Your task to perform on an android device: toggle pop-ups in chrome Image 0: 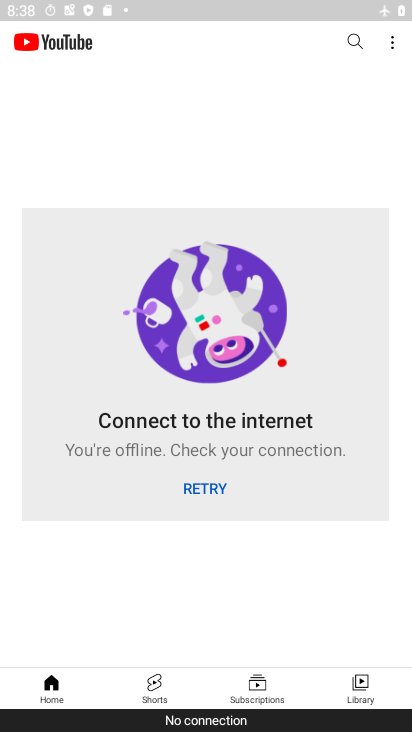
Step 0: press home button
Your task to perform on an android device: toggle pop-ups in chrome Image 1: 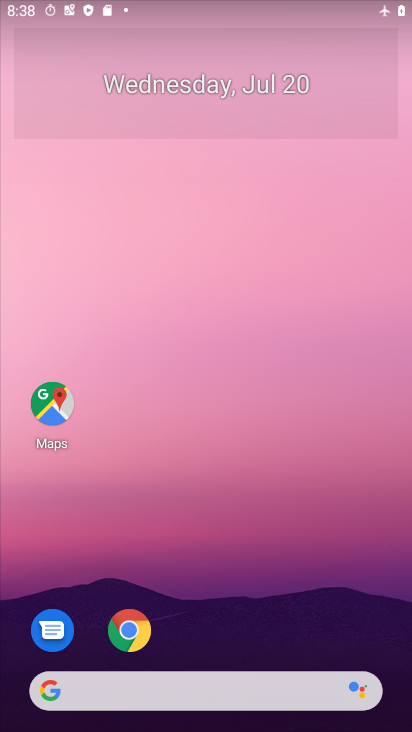
Step 1: drag from (249, 665) to (329, 175)
Your task to perform on an android device: toggle pop-ups in chrome Image 2: 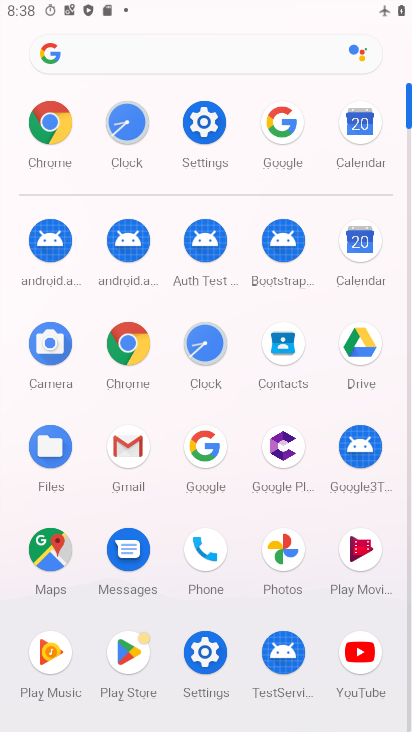
Step 2: click (147, 364)
Your task to perform on an android device: toggle pop-ups in chrome Image 3: 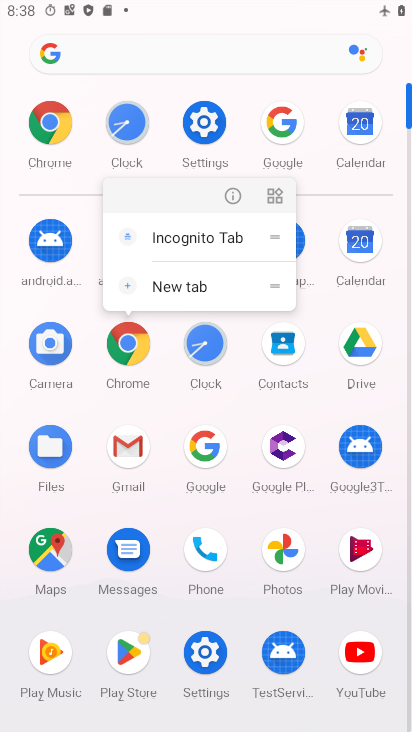
Step 3: click (145, 365)
Your task to perform on an android device: toggle pop-ups in chrome Image 4: 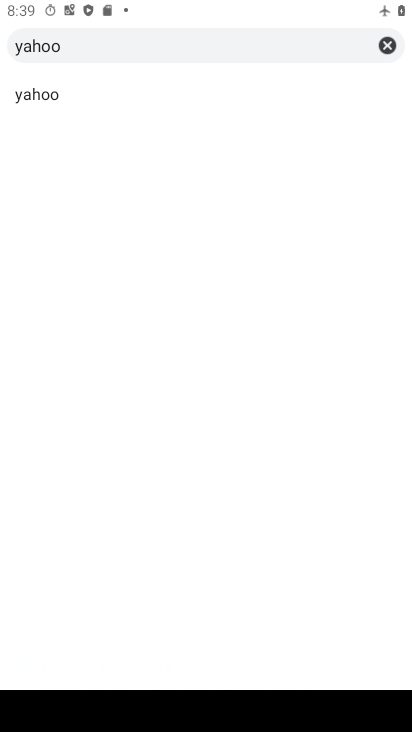
Step 4: press home button
Your task to perform on an android device: toggle pop-ups in chrome Image 5: 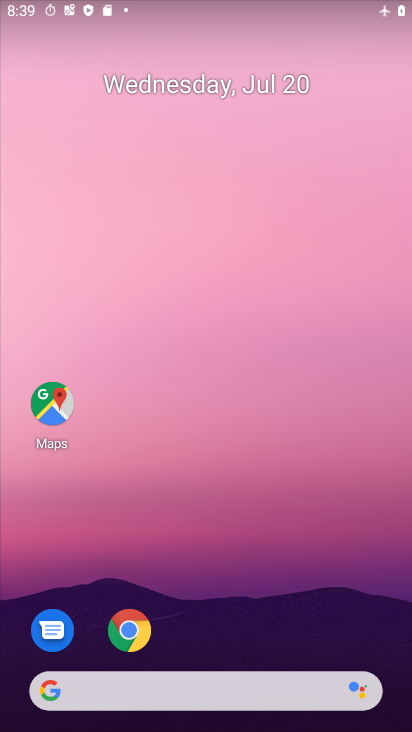
Step 5: click (136, 636)
Your task to perform on an android device: toggle pop-ups in chrome Image 6: 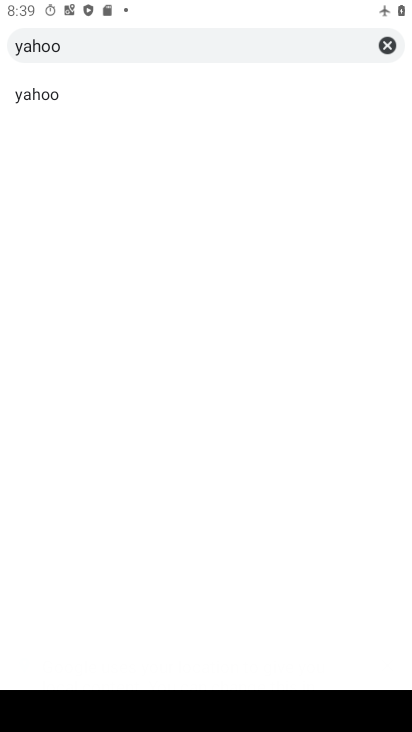
Step 6: click (390, 47)
Your task to perform on an android device: toggle pop-ups in chrome Image 7: 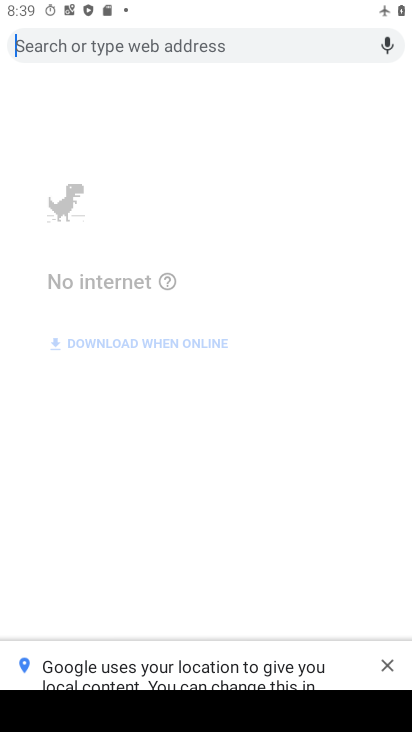
Step 7: press back button
Your task to perform on an android device: toggle pop-ups in chrome Image 8: 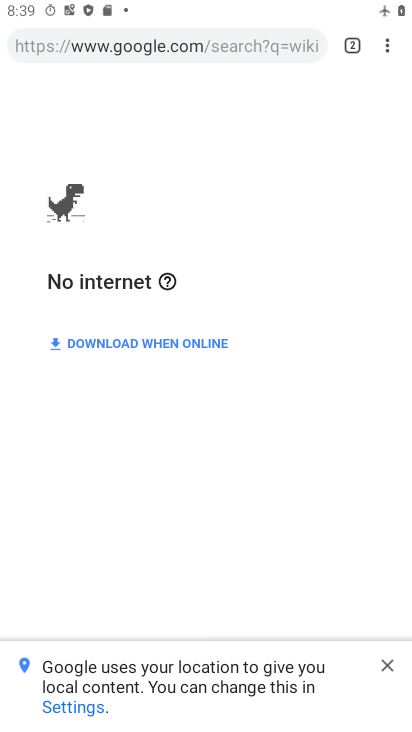
Step 8: click (389, 50)
Your task to perform on an android device: toggle pop-ups in chrome Image 9: 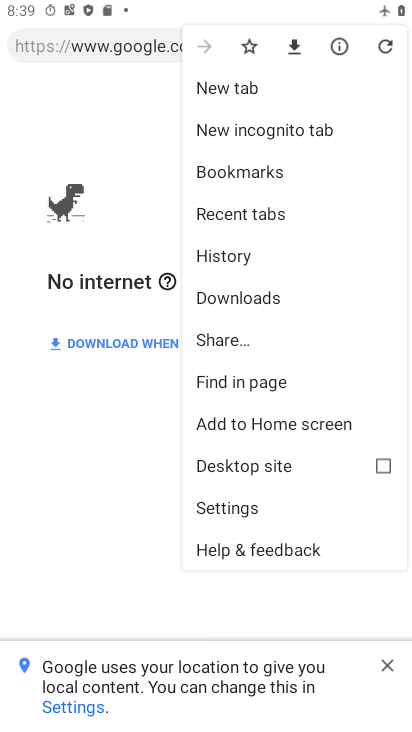
Step 9: click (240, 507)
Your task to perform on an android device: toggle pop-ups in chrome Image 10: 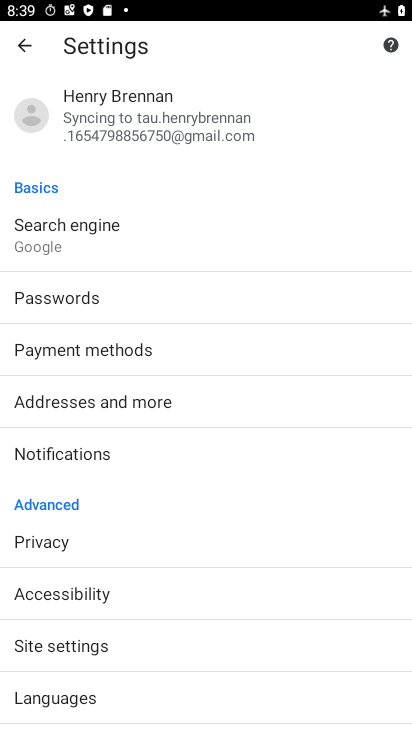
Step 10: click (126, 654)
Your task to perform on an android device: toggle pop-ups in chrome Image 11: 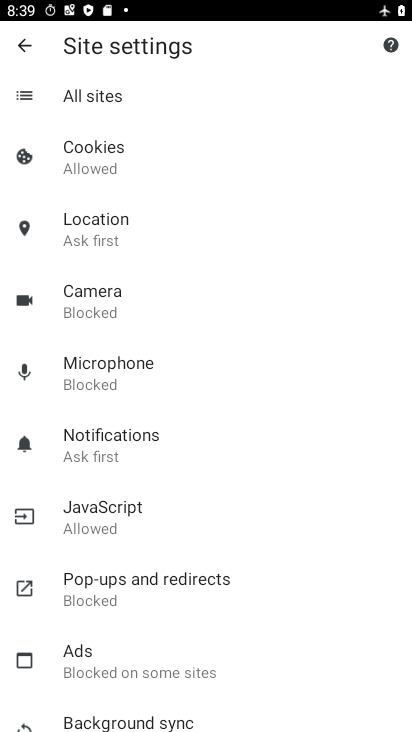
Step 11: click (149, 596)
Your task to perform on an android device: toggle pop-ups in chrome Image 12: 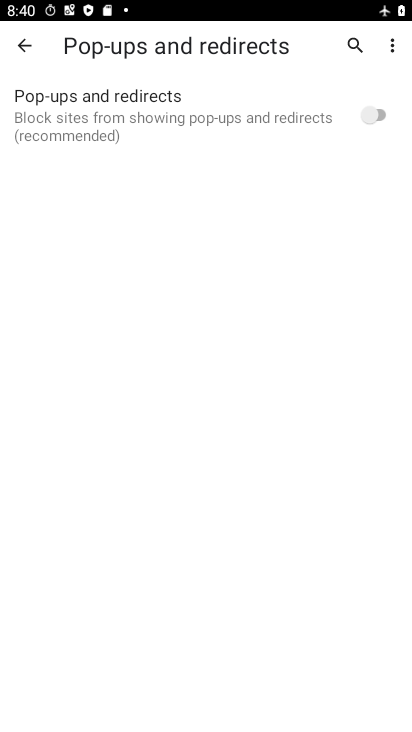
Step 12: click (380, 113)
Your task to perform on an android device: toggle pop-ups in chrome Image 13: 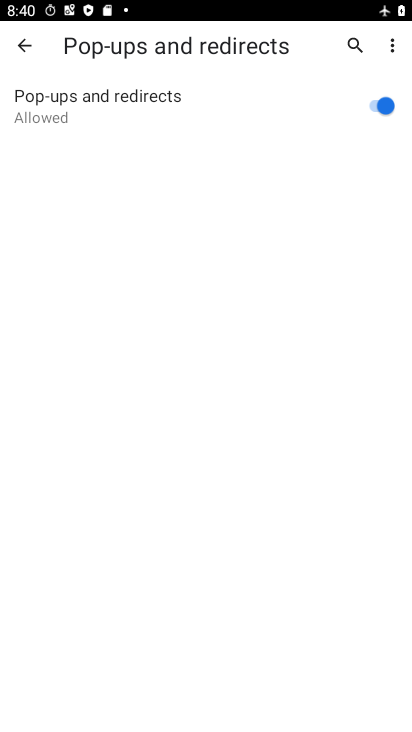
Step 13: task complete